Your task to perform on an android device: star an email in the gmail app Image 0: 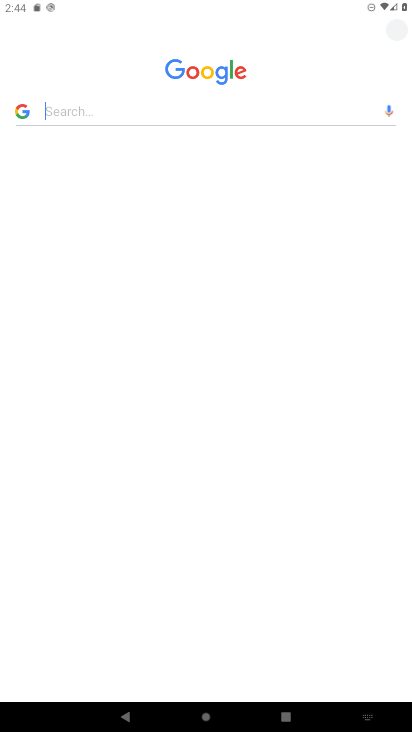
Step 0: press home button
Your task to perform on an android device: star an email in the gmail app Image 1: 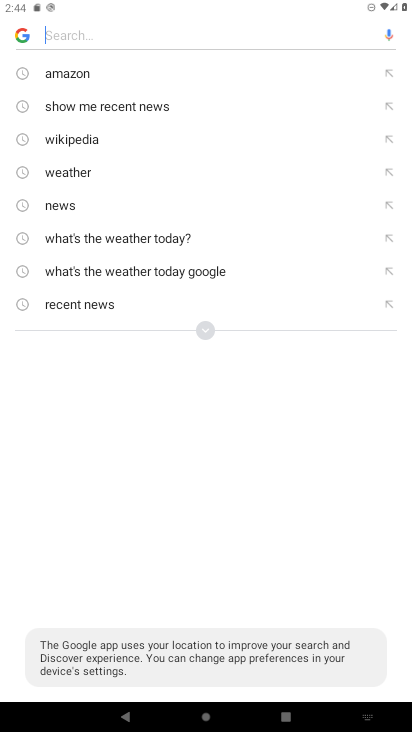
Step 1: press home button
Your task to perform on an android device: star an email in the gmail app Image 2: 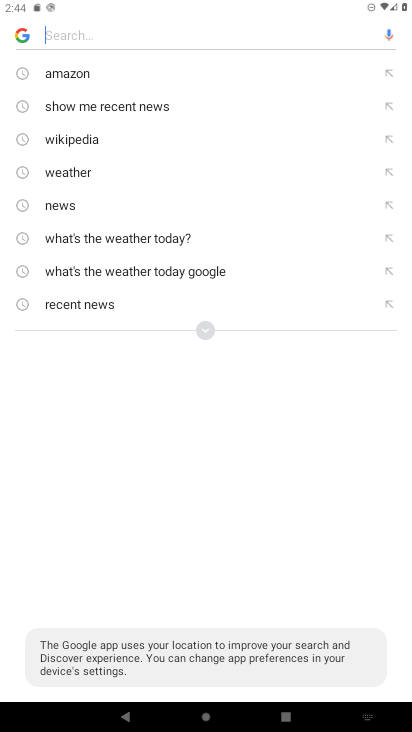
Step 2: drag from (299, 441) to (312, 117)
Your task to perform on an android device: star an email in the gmail app Image 3: 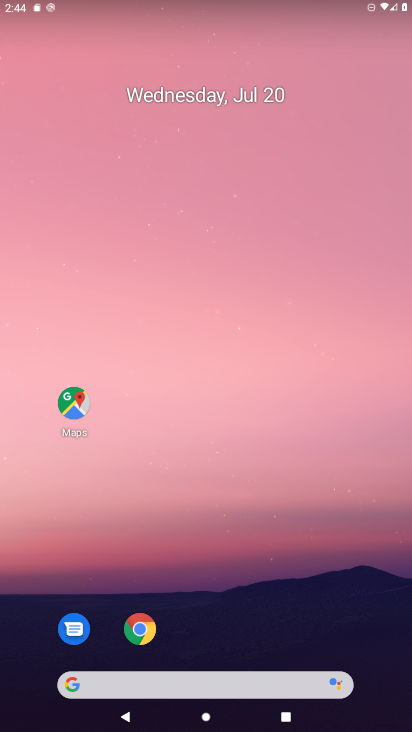
Step 3: drag from (225, 537) to (276, 4)
Your task to perform on an android device: star an email in the gmail app Image 4: 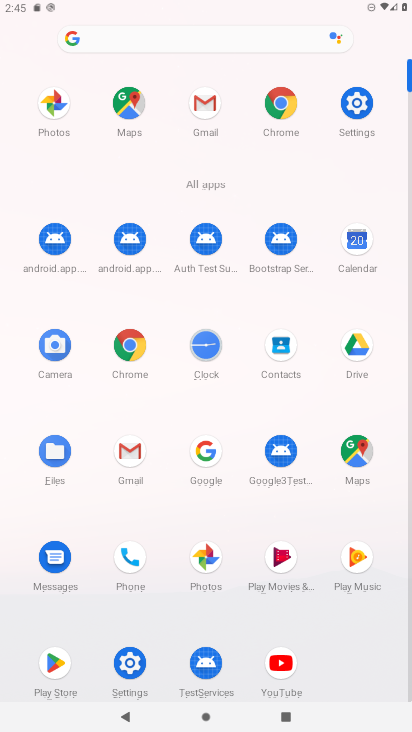
Step 4: click (130, 479)
Your task to perform on an android device: star an email in the gmail app Image 5: 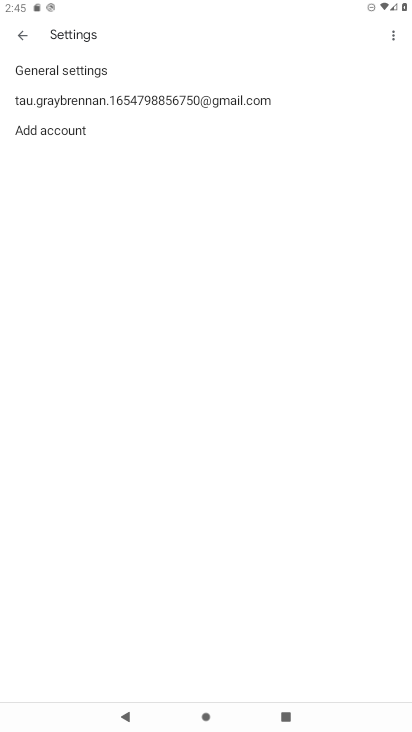
Step 5: click (16, 31)
Your task to perform on an android device: star an email in the gmail app Image 6: 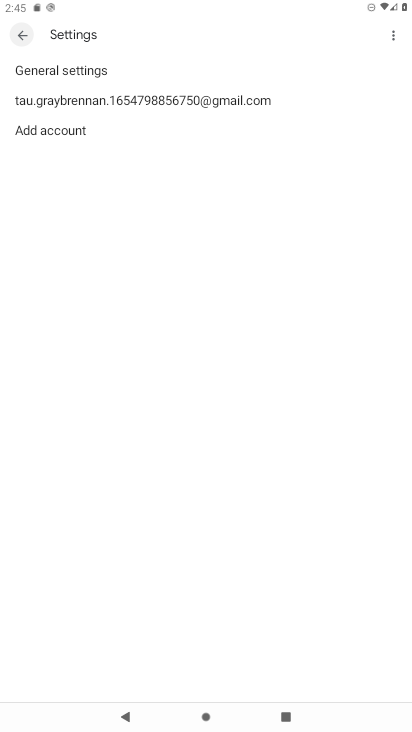
Step 6: click (26, 30)
Your task to perform on an android device: star an email in the gmail app Image 7: 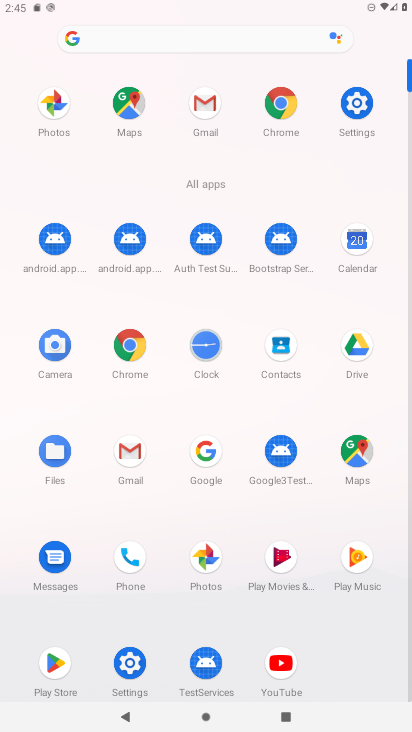
Step 7: click (221, 113)
Your task to perform on an android device: star an email in the gmail app Image 8: 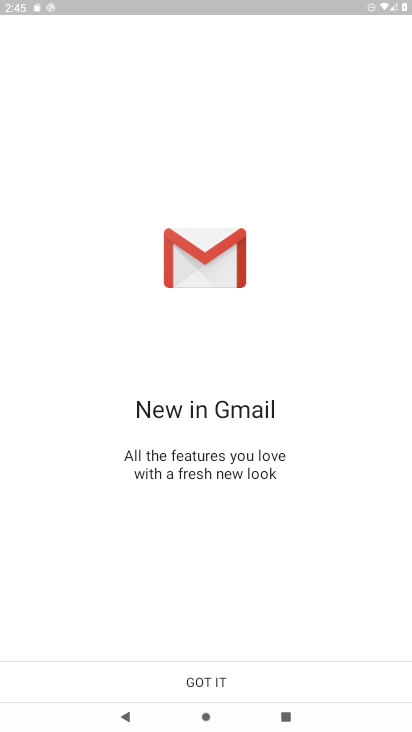
Step 8: click (212, 672)
Your task to perform on an android device: star an email in the gmail app Image 9: 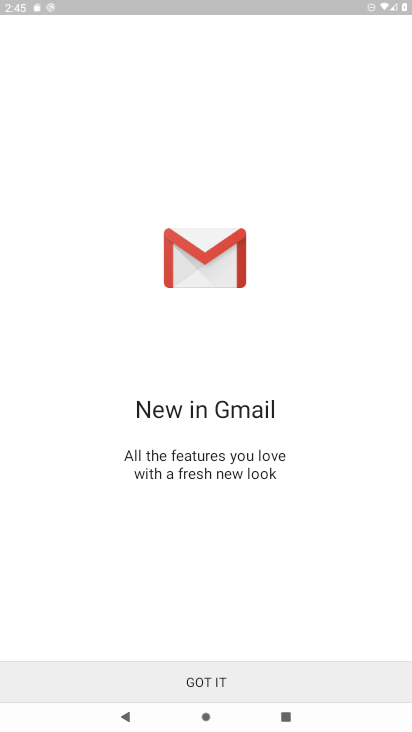
Step 9: click (218, 689)
Your task to perform on an android device: star an email in the gmail app Image 10: 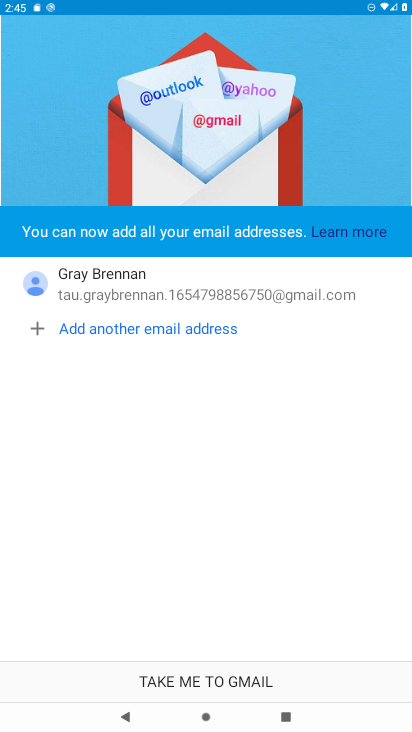
Step 10: click (218, 689)
Your task to perform on an android device: star an email in the gmail app Image 11: 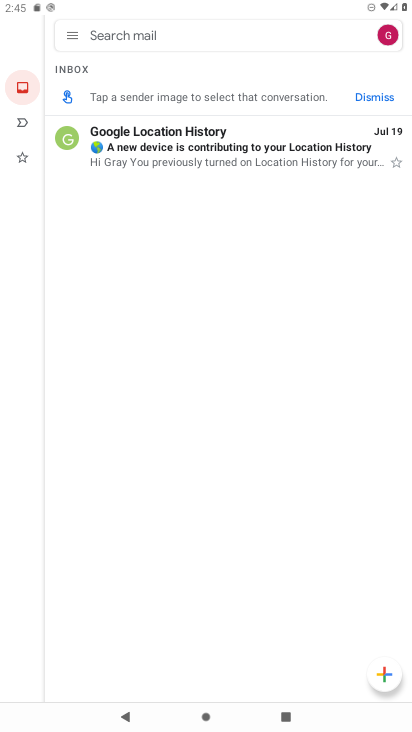
Step 11: click (86, 31)
Your task to perform on an android device: star an email in the gmail app Image 12: 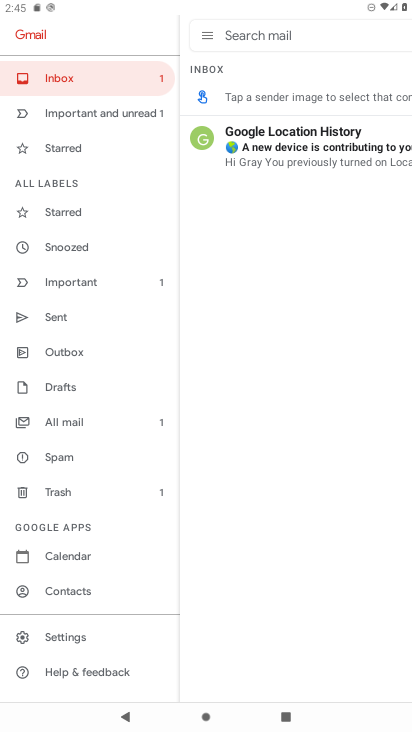
Step 12: click (69, 211)
Your task to perform on an android device: star an email in the gmail app Image 13: 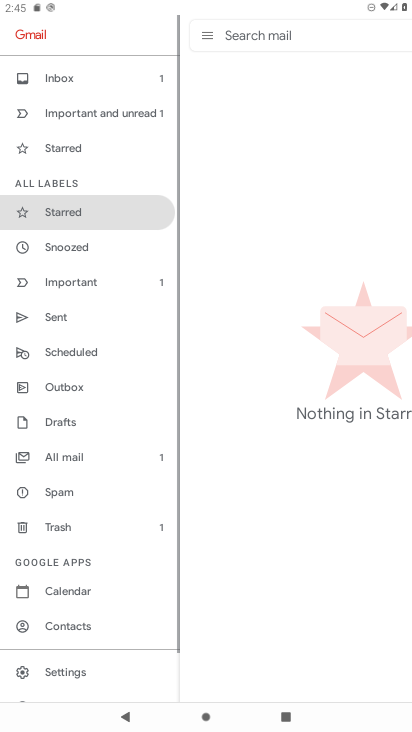
Step 13: task complete